Your task to perform on an android device: toggle sleep mode Image 0: 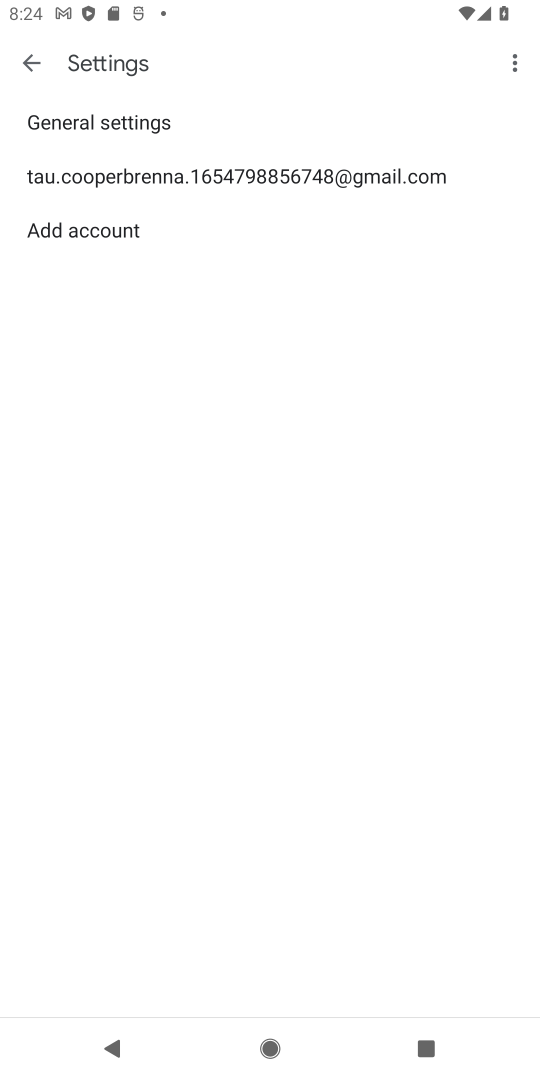
Step 0: press home button
Your task to perform on an android device: toggle sleep mode Image 1: 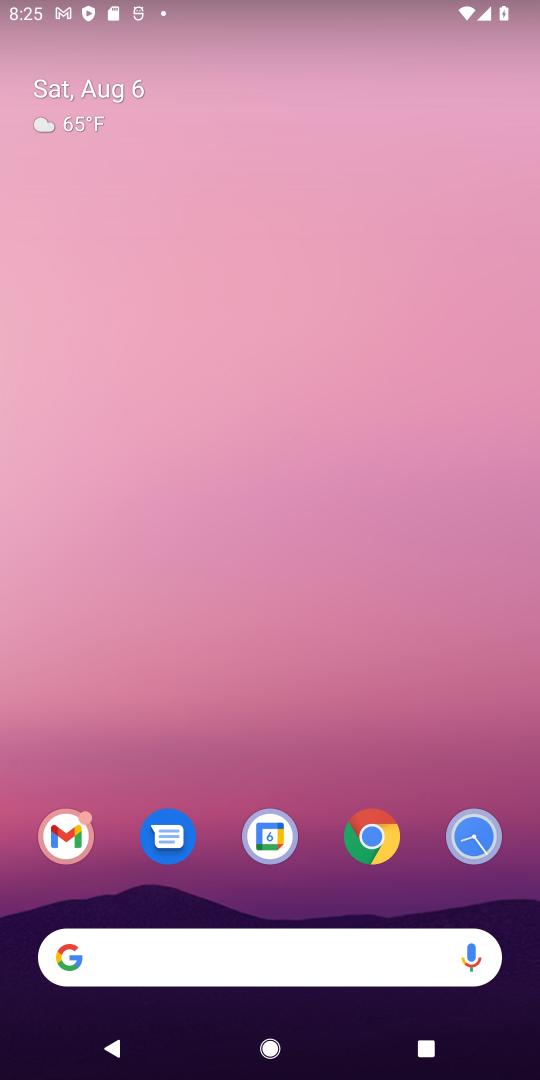
Step 1: drag from (453, 877) to (376, 143)
Your task to perform on an android device: toggle sleep mode Image 2: 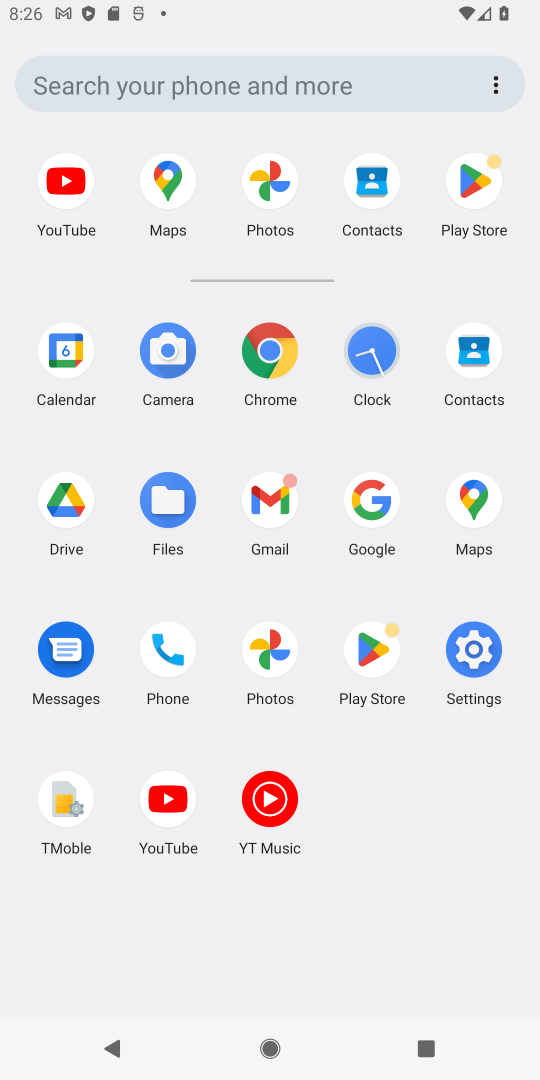
Step 2: click (477, 648)
Your task to perform on an android device: toggle sleep mode Image 3: 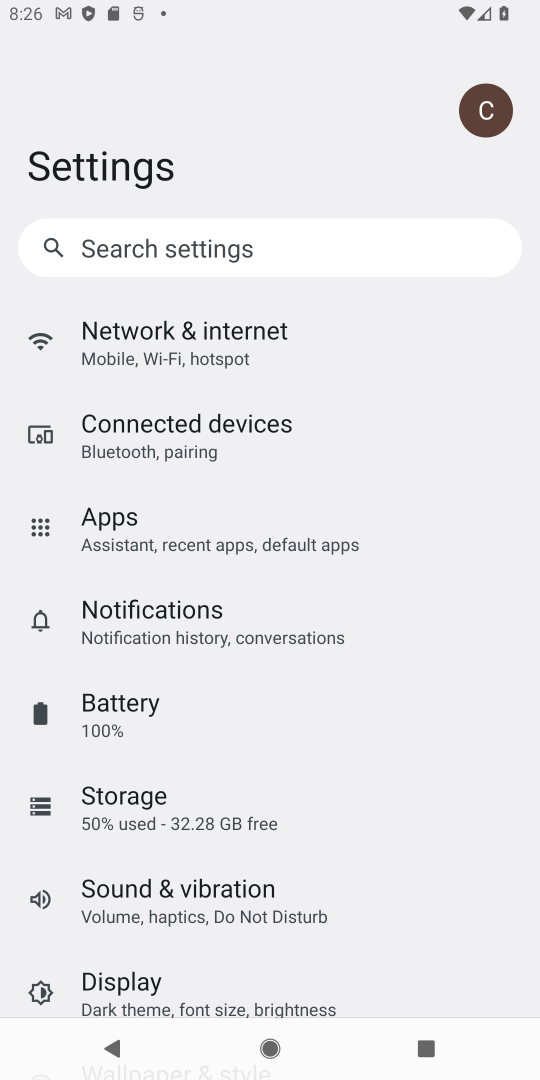
Step 3: task complete